Your task to perform on an android device: find photos in the google photos app Image 0: 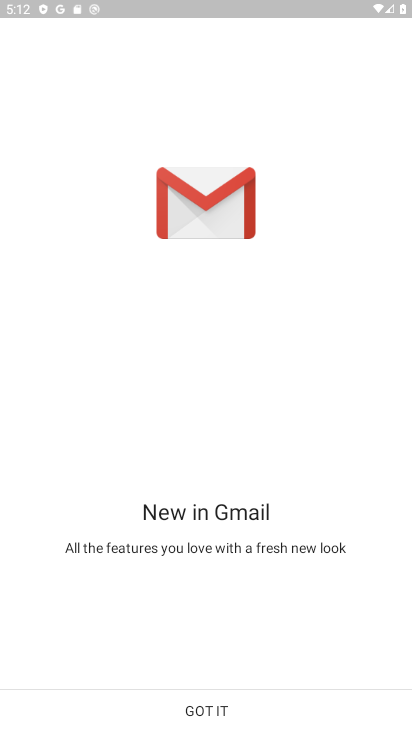
Step 0: press home button
Your task to perform on an android device: find photos in the google photos app Image 1: 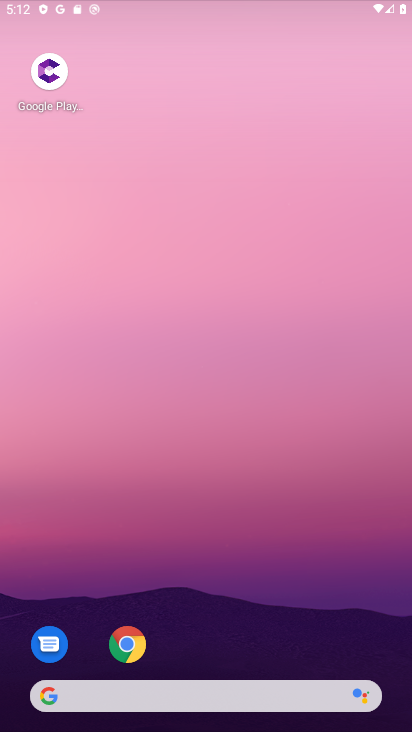
Step 1: drag from (295, 640) to (217, 131)
Your task to perform on an android device: find photos in the google photos app Image 2: 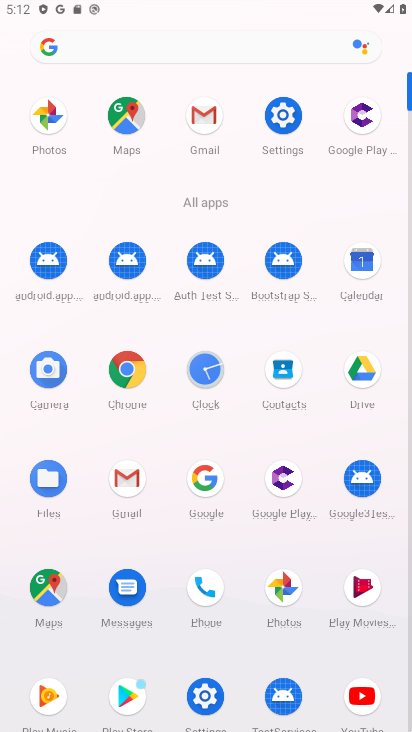
Step 2: click (300, 581)
Your task to perform on an android device: find photos in the google photos app Image 3: 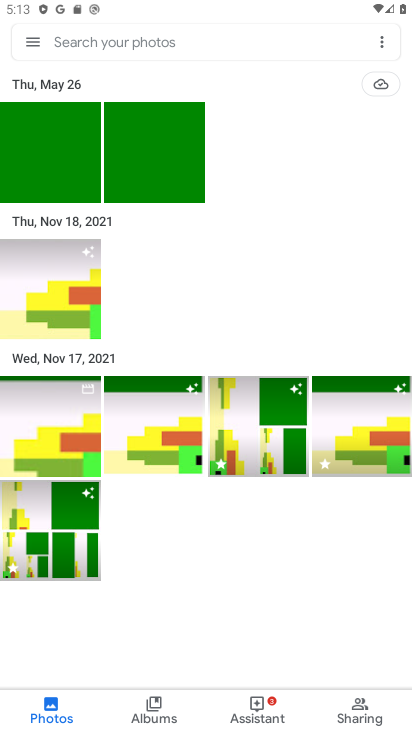
Step 3: task complete